Your task to perform on an android device: turn on the 12-hour format for clock Image 0: 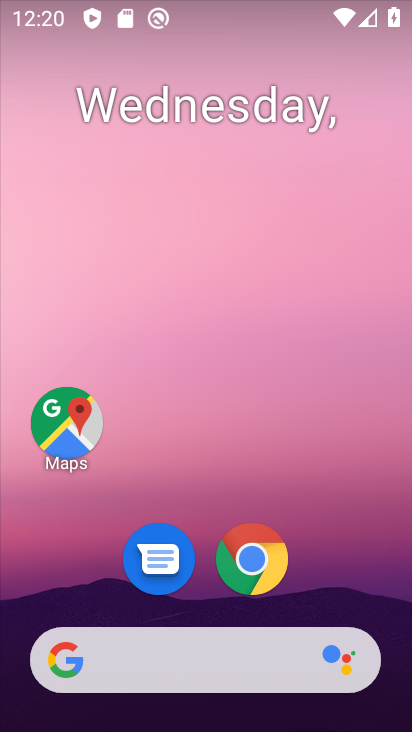
Step 0: drag from (255, 368) to (305, 57)
Your task to perform on an android device: turn on the 12-hour format for clock Image 1: 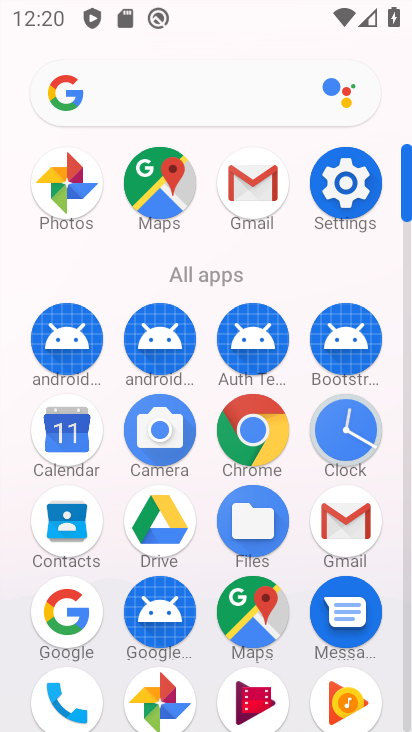
Step 1: click (350, 202)
Your task to perform on an android device: turn on the 12-hour format for clock Image 2: 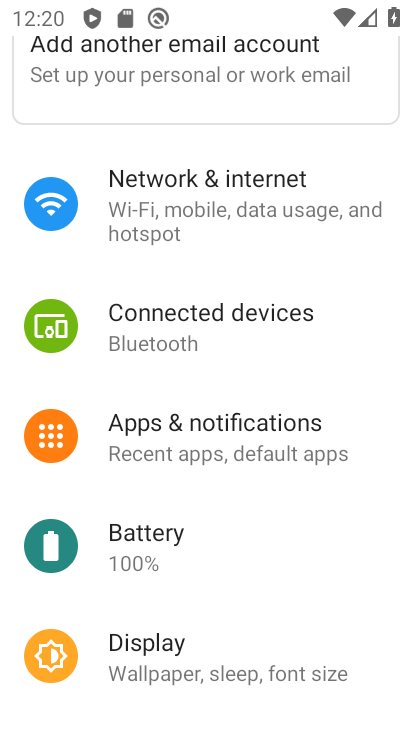
Step 2: drag from (156, 626) to (246, 250)
Your task to perform on an android device: turn on the 12-hour format for clock Image 3: 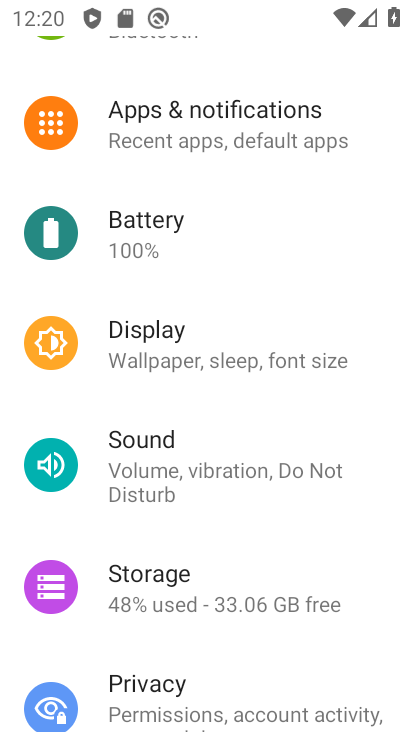
Step 3: drag from (198, 617) to (301, 242)
Your task to perform on an android device: turn on the 12-hour format for clock Image 4: 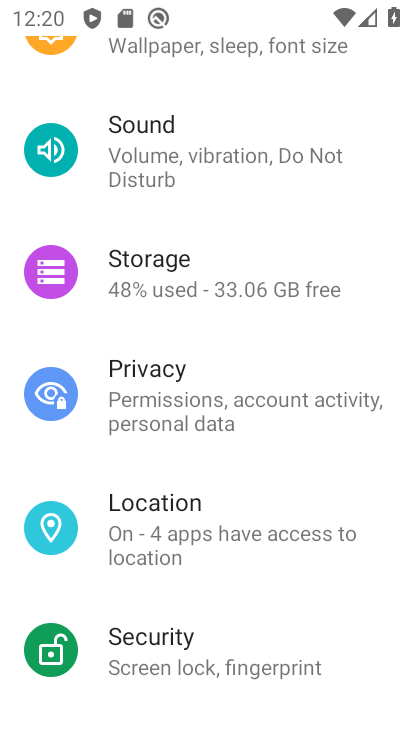
Step 4: drag from (190, 554) to (259, 179)
Your task to perform on an android device: turn on the 12-hour format for clock Image 5: 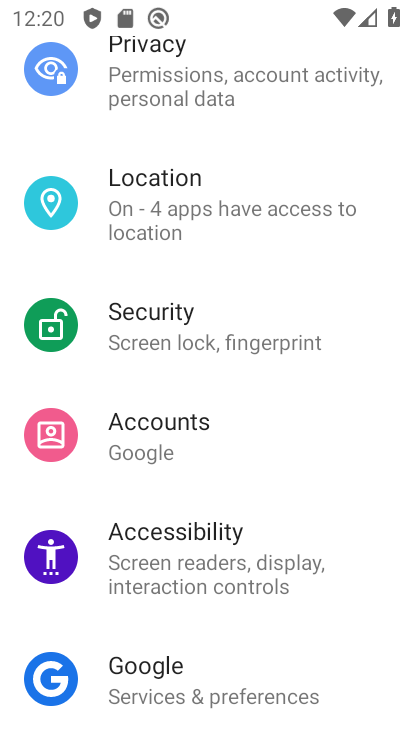
Step 5: drag from (199, 671) to (222, 330)
Your task to perform on an android device: turn on the 12-hour format for clock Image 6: 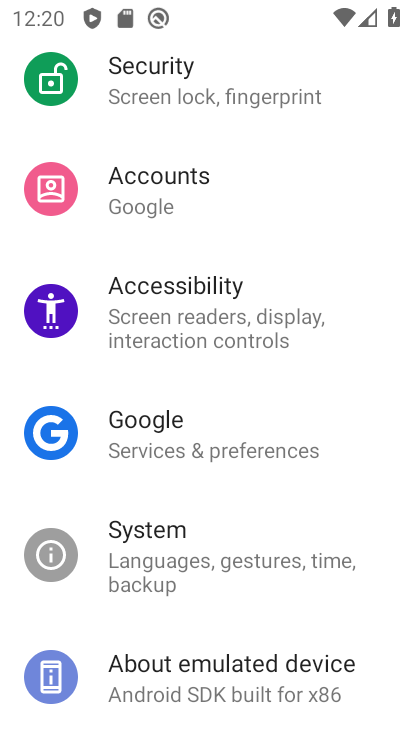
Step 6: click (182, 582)
Your task to perform on an android device: turn on the 12-hour format for clock Image 7: 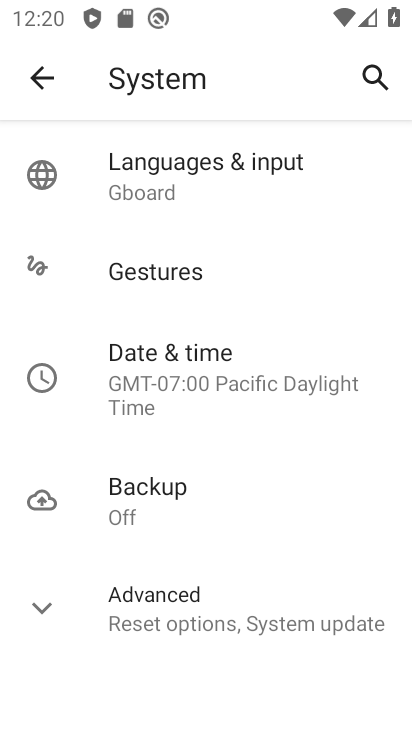
Step 7: click (164, 385)
Your task to perform on an android device: turn on the 12-hour format for clock Image 8: 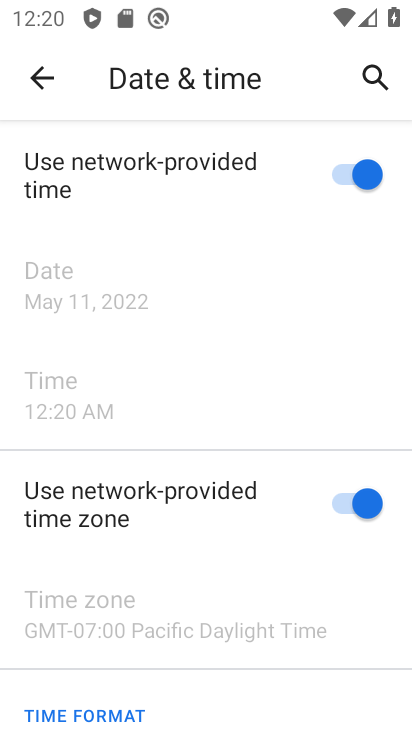
Step 8: task complete